Your task to perform on an android device: open chrome and create a bookmark for the current page Image 0: 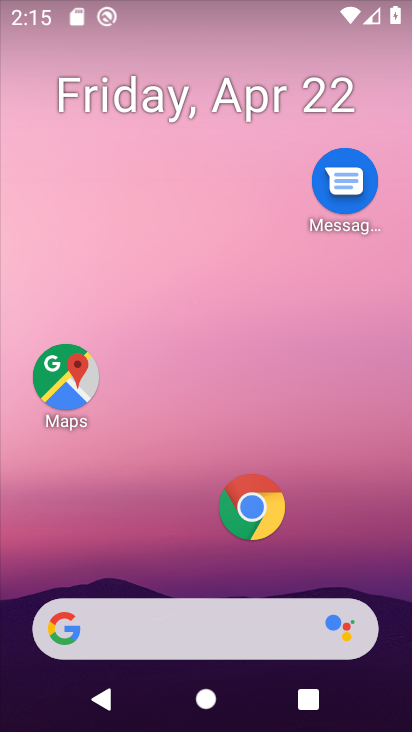
Step 0: click (258, 513)
Your task to perform on an android device: open chrome and create a bookmark for the current page Image 1: 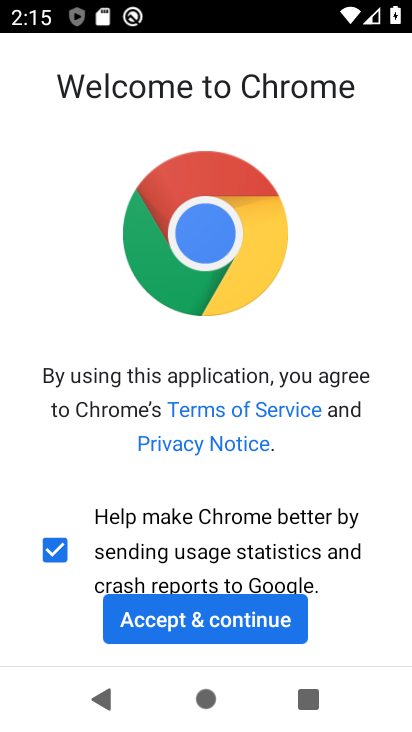
Step 1: click (250, 615)
Your task to perform on an android device: open chrome and create a bookmark for the current page Image 2: 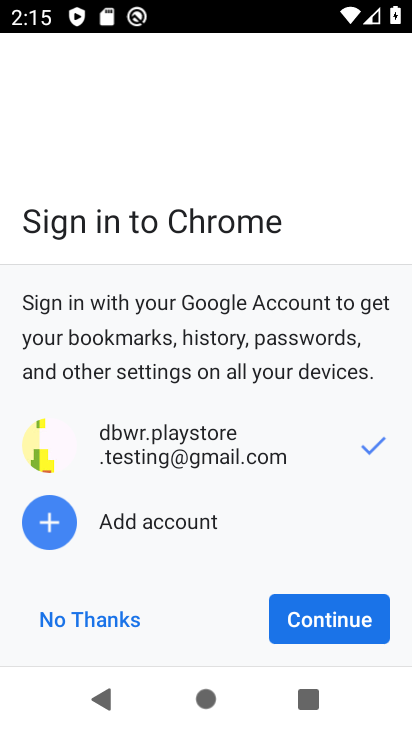
Step 2: click (325, 621)
Your task to perform on an android device: open chrome and create a bookmark for the current page Image 3: 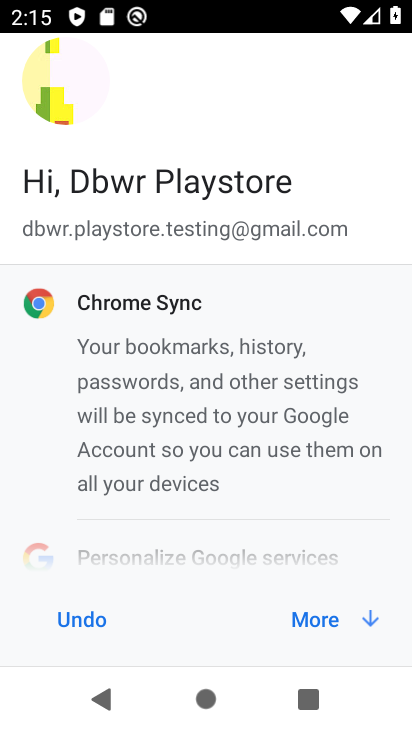
Step 3: click (325, 621)
Your task to perform on an android device: open chrome and create a bookmark for the current page Image 4: 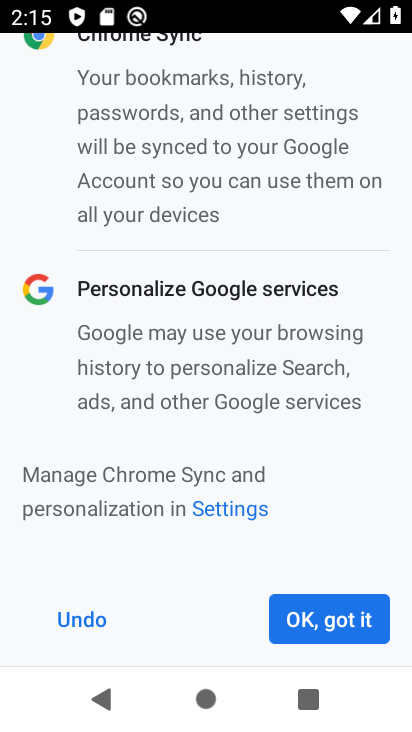
Step 4: click (325, 621)
Your task to perform on an android device: open chrome and create a bookmark for the current page Image 5: 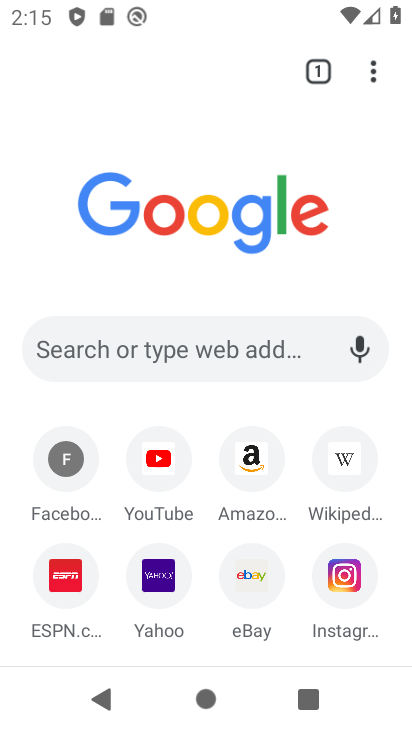
Step 5: click (385, 78)
Your task to perform on an android device: open chrome and create a bookmark for the current page Image 6: 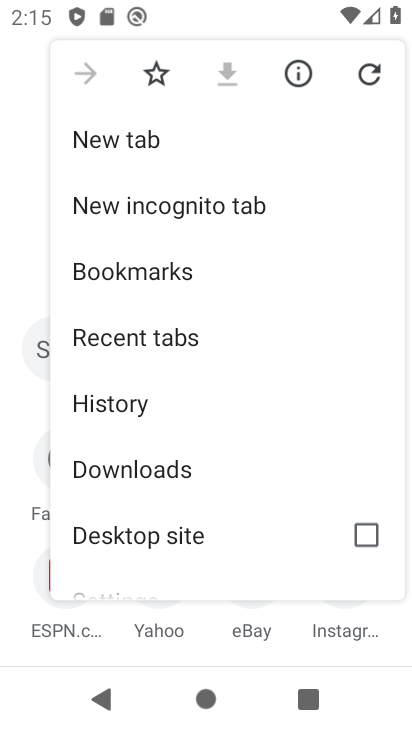
Step 6: click (30, 132)
Your task to perform on an android device: open chrome and create a bookmark for the current page Image 7: 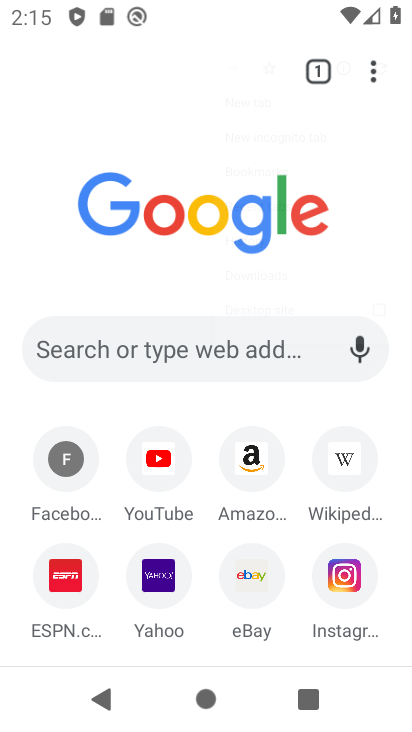
Step 7: click (31, 132)
Your task to perform on an android device: open chrome and create a bookmark for the current page Image 8: 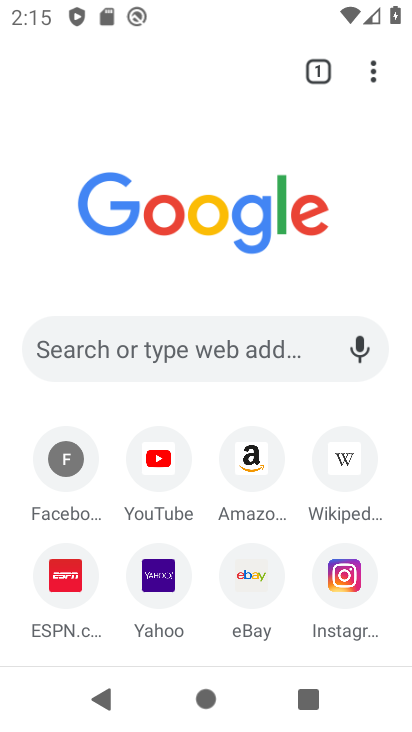
Step 8: click (218, 342)
Your task to perform on an android device: open chrome and create a bookmark for the current page Image 9: 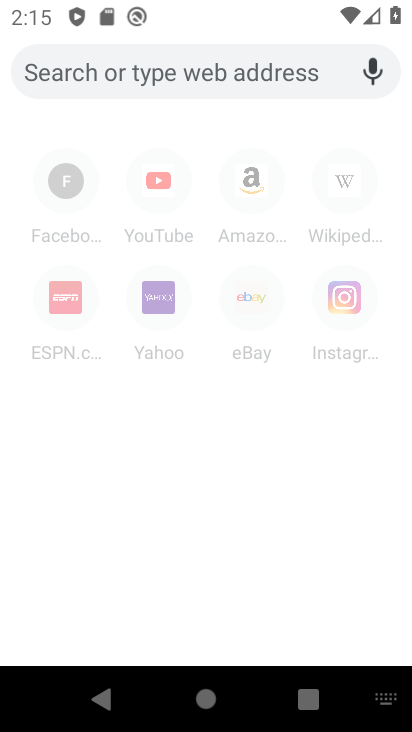
Step 9: type "flemingo"
Your task to perform on an android device: open chrome and create a bookmark for the current page Image 10: 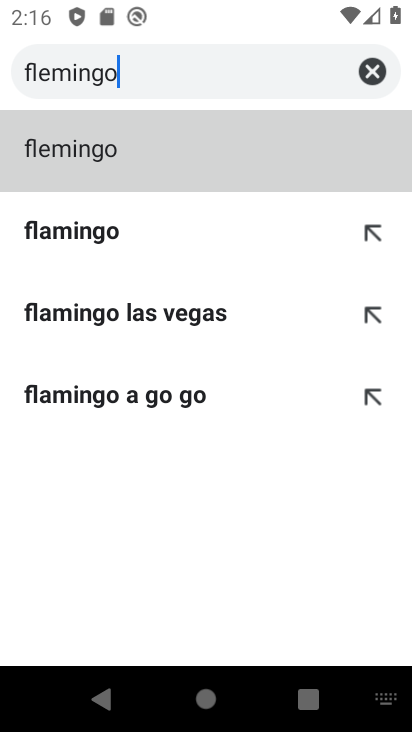
Step 10: click (180, 163)
Your task to perform on an android device: open chrome and create a bookmark for the current page Image 11: 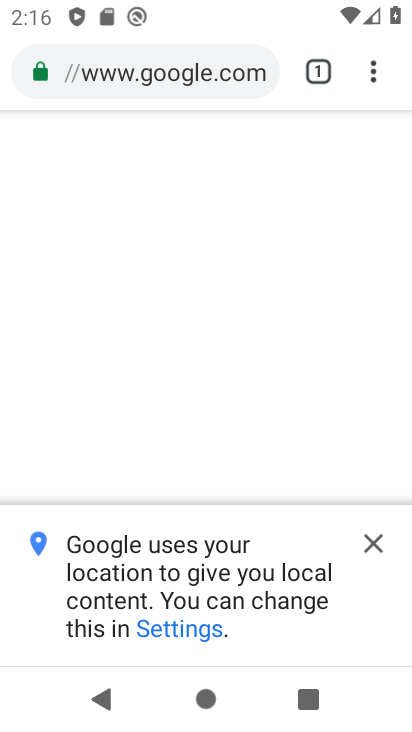
Step 11: click (376, 83)
Your task to perform on an android device: open chrome and create a bookmark for the current page Image 12: 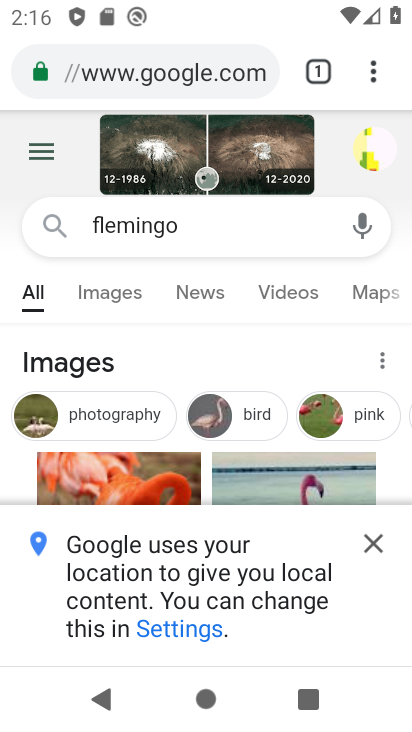
Step 12: click (374, 77)
Your task to perform on an android device: open chrome and create a bookmark for the current page Image 13: 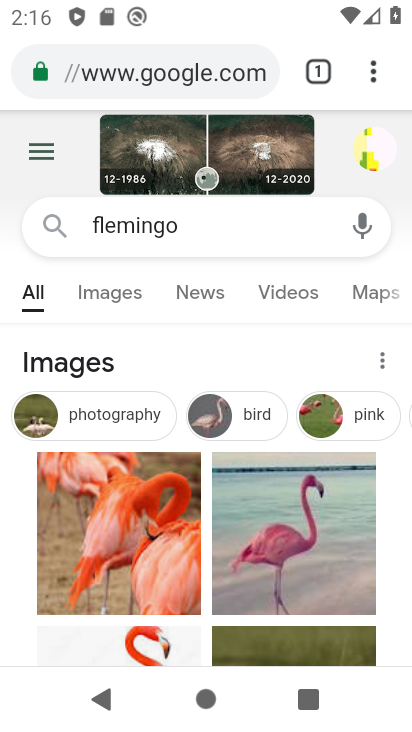
Step 13: click (364, 87)
Your task to perform on an android device: open chrome and create a bookmark for the current page Image 14: 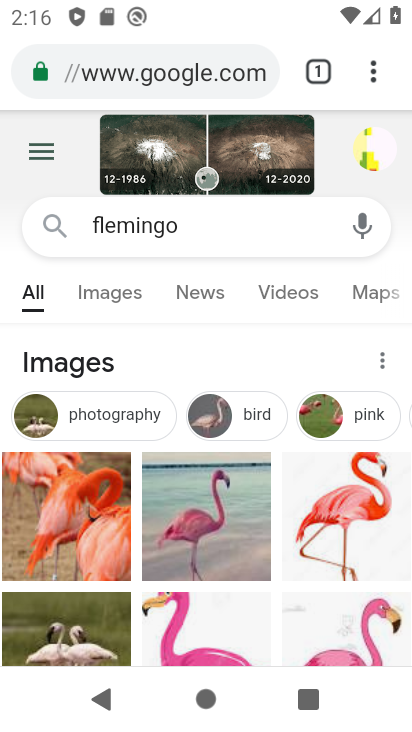
Step 14: click (378, 84)
Your task to perform on an android device: open chrome and create a bookmark for the current page Image 15: 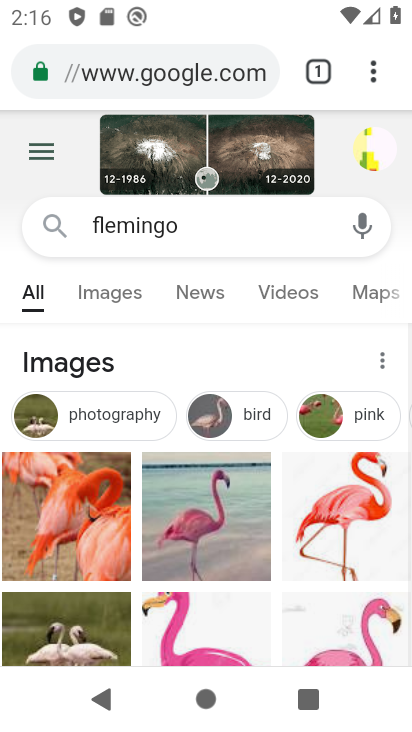
Step 15: click (373, 82)
Your task to perform on an android device: open chrome and create a bookmark for the current page Image 16: 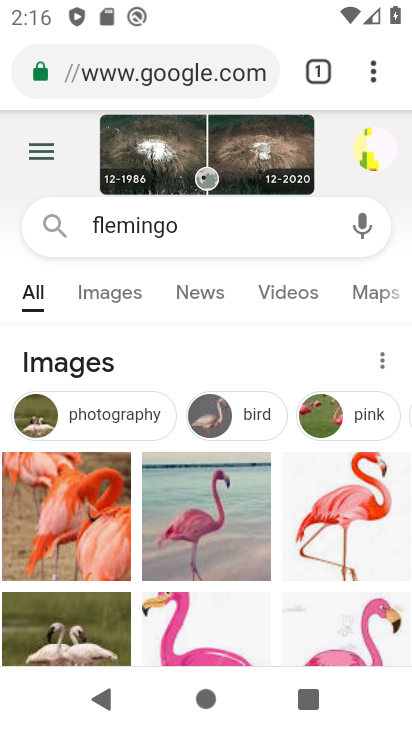
Step 16: click (355, 79)
Your task to perform on an android device: open chrome and create a bookmark for the current page Image 17: 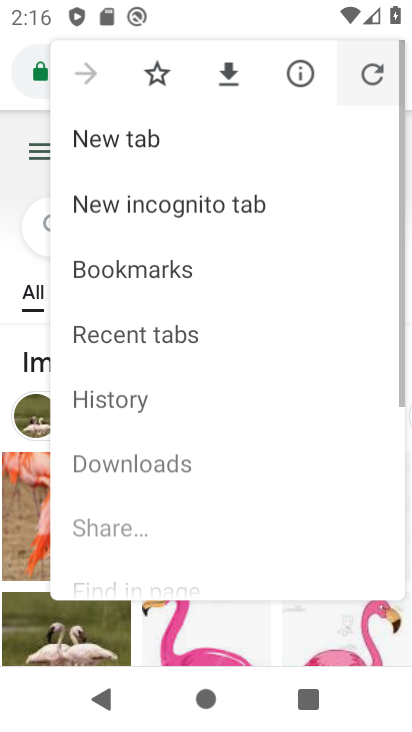
Step 17: click (179, 76)
Your task to perform on an android device: open chrome and create a bookmark for the current page Image 18: 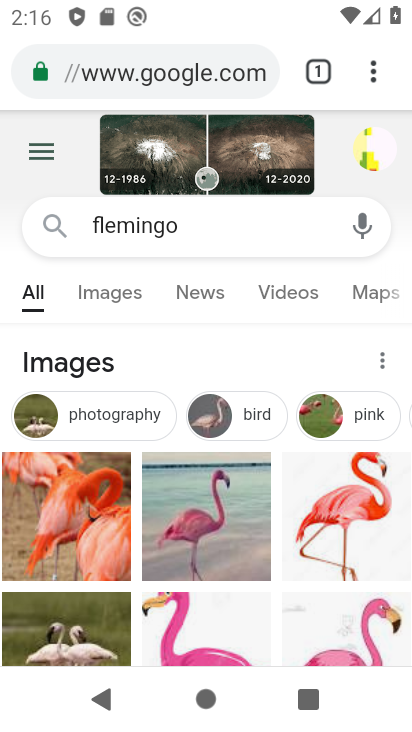
Step 18: click (157, 76)
Your task to perform on an android device: open chrome and create a bookmark for the current page Image 19: 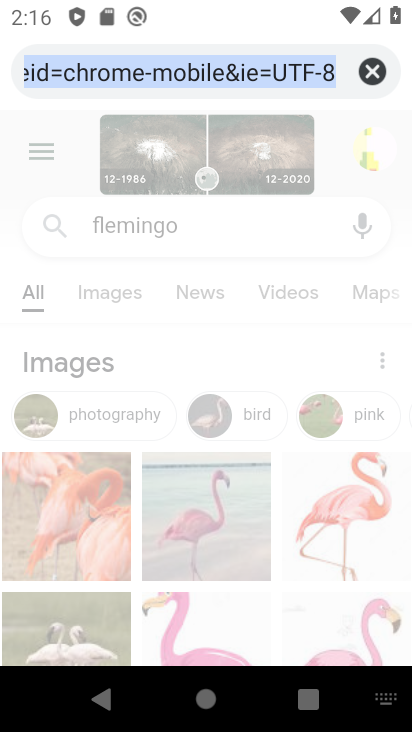
Step 19: task complete